Your task to perform on an android device: uninstall "Google Keep" Image 0: 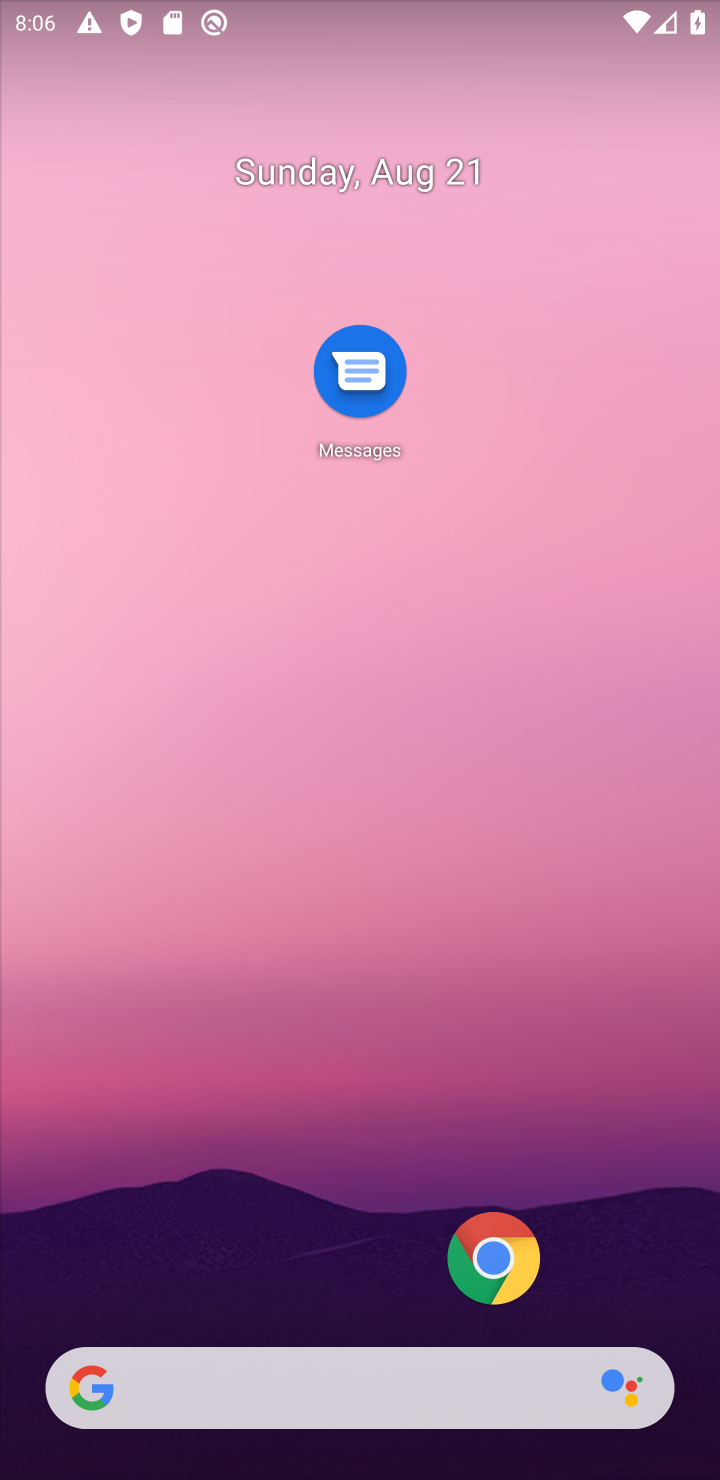
Step 0: drag from (333, 1391) to (355, 305)
Your task to perform on an android device: uninstall "Google Keep" Image 1: 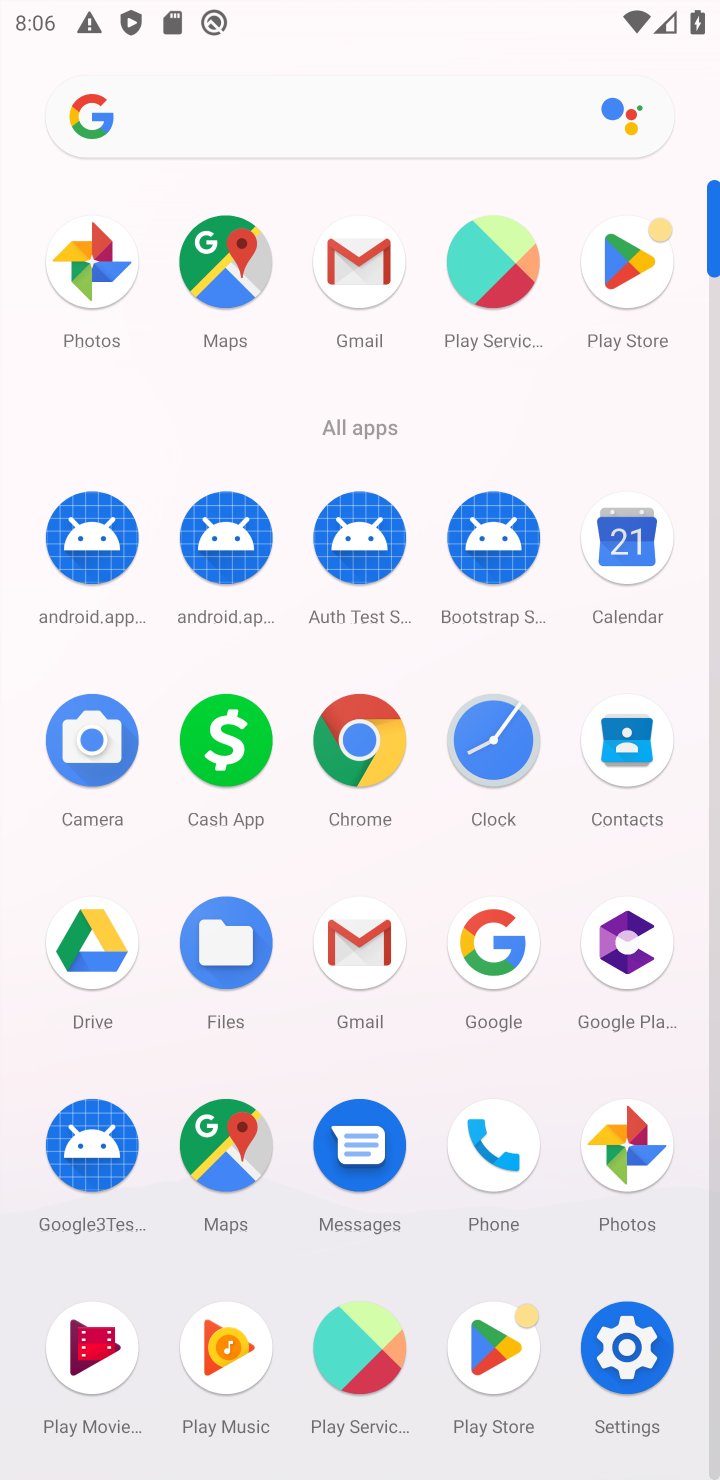
Step 1: click (624, 276)
Your task to perform on an android device: uninstall "Google Keep" Image 2: 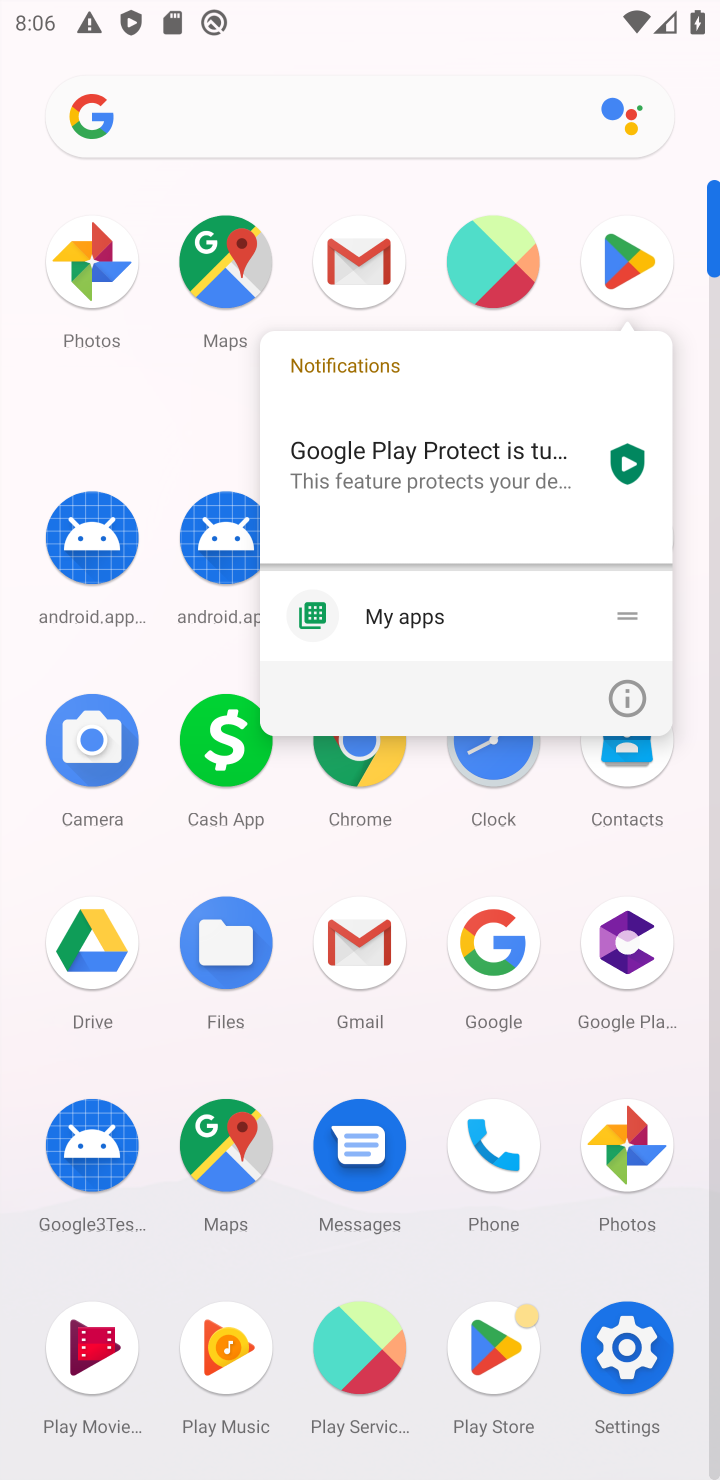
Step 2: click (619, 290)
Your task to perform on an android device: uninstall "Google Keep" Image 3: 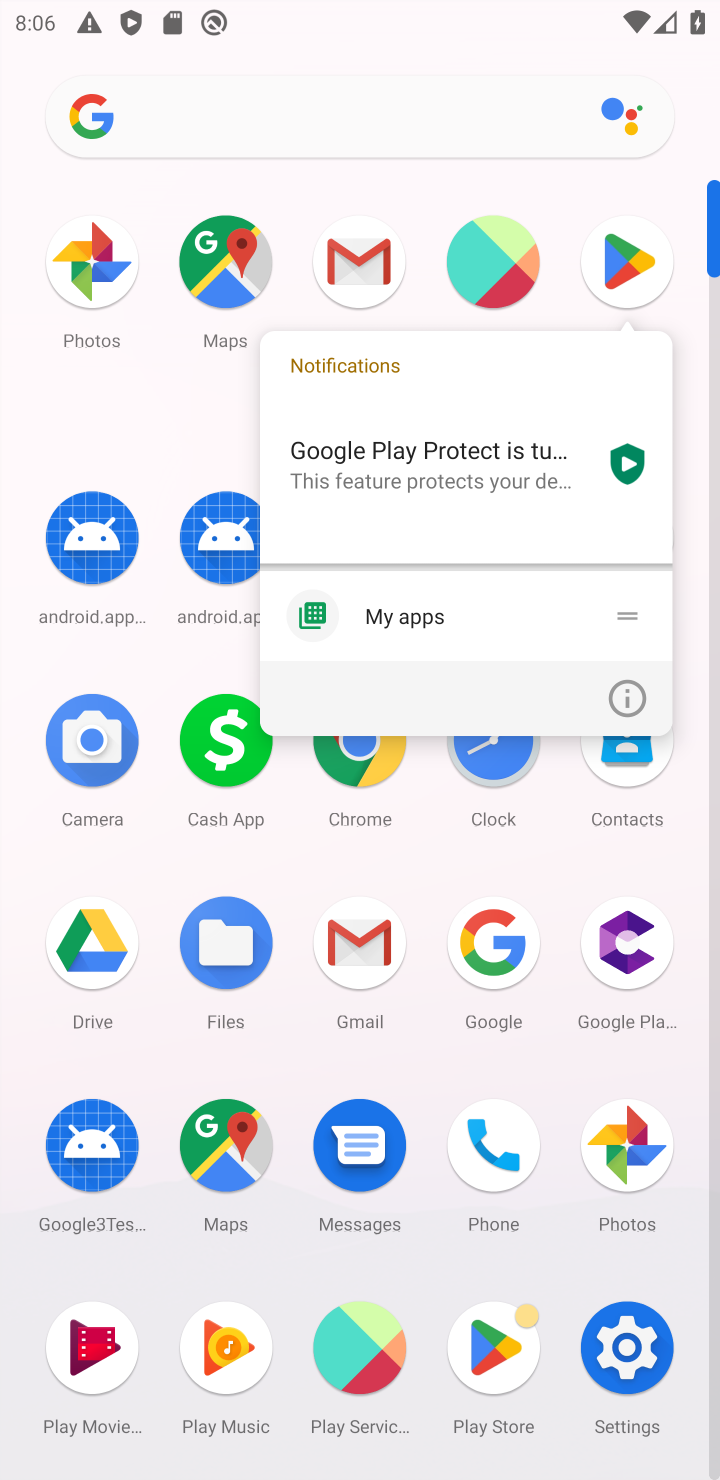
Step 3: click (619, 288)
Your task to perform on an android device: uninstall "Google Keep" Image 4: 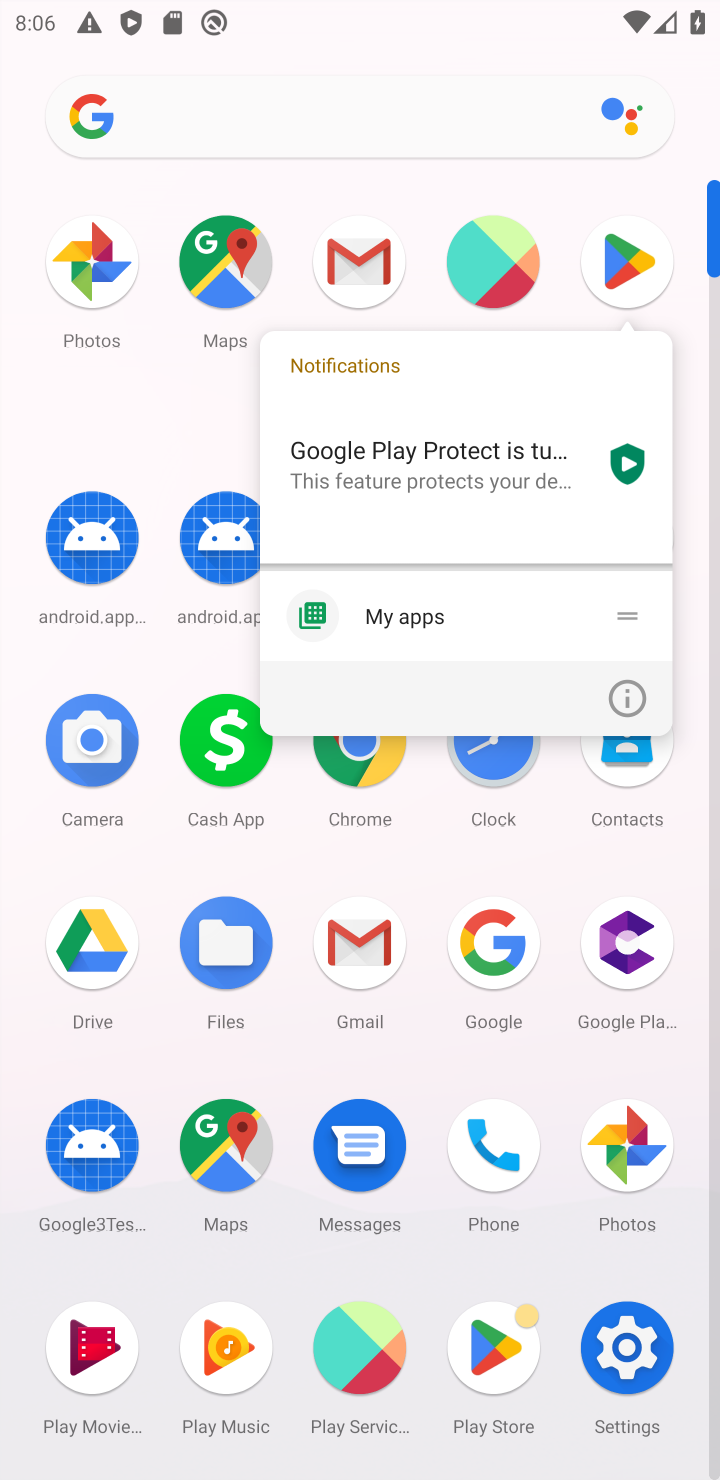
Step 4: click (613, 272)
Your task to perform on an android device: uninstall "Google Keep" Image 5: 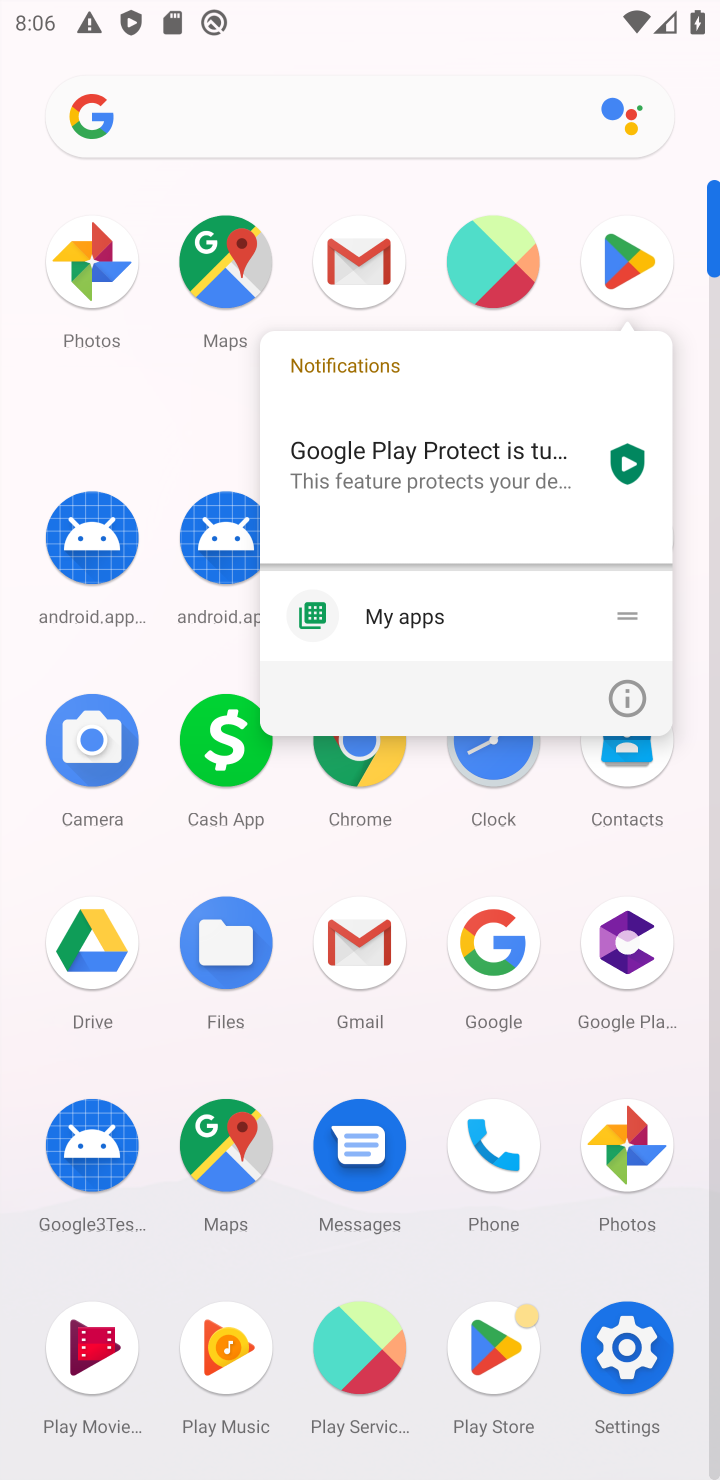
Step 5: click (613, 274)
Your task to perform on an android device: uninstall "Google Keep" Image 6: 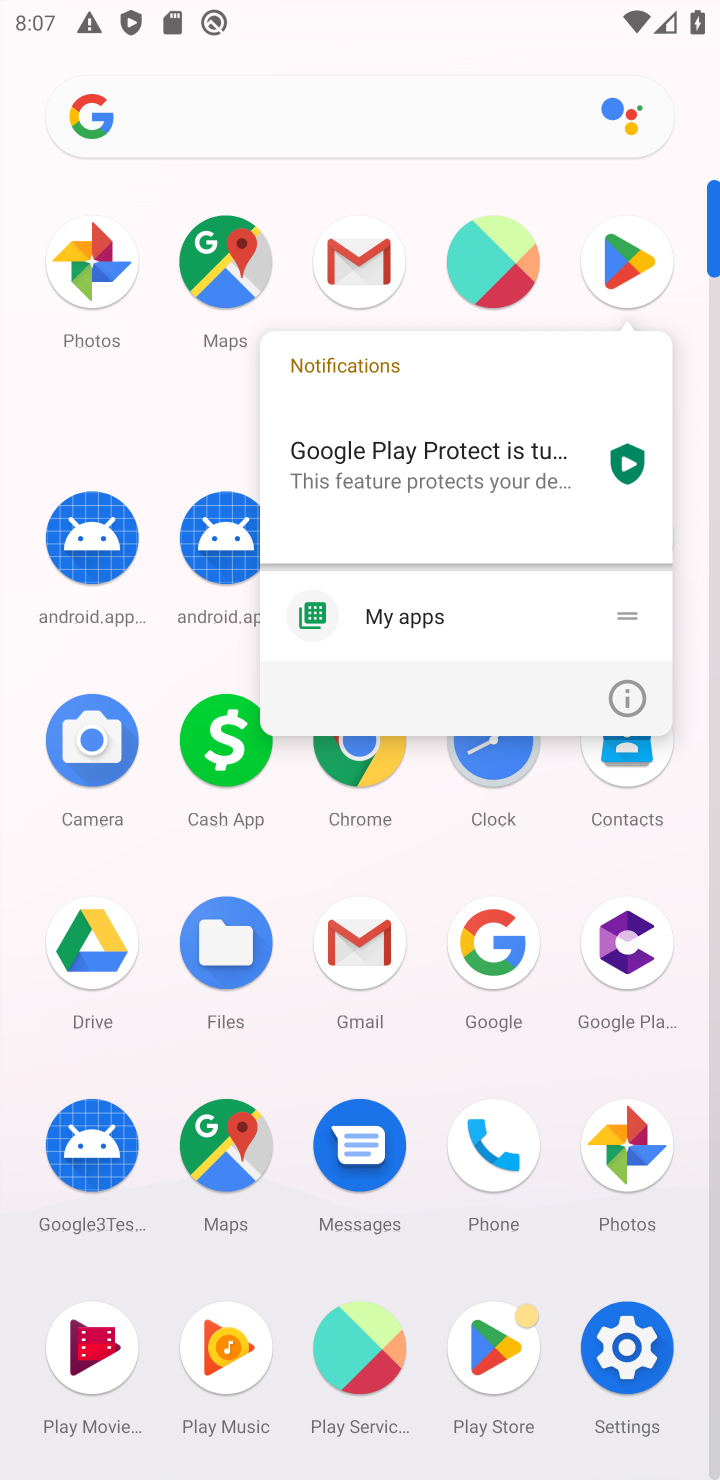
Step 6: click (650, 274)
Your task to perform on an android device: uninstall "Google Keep" Image 7: 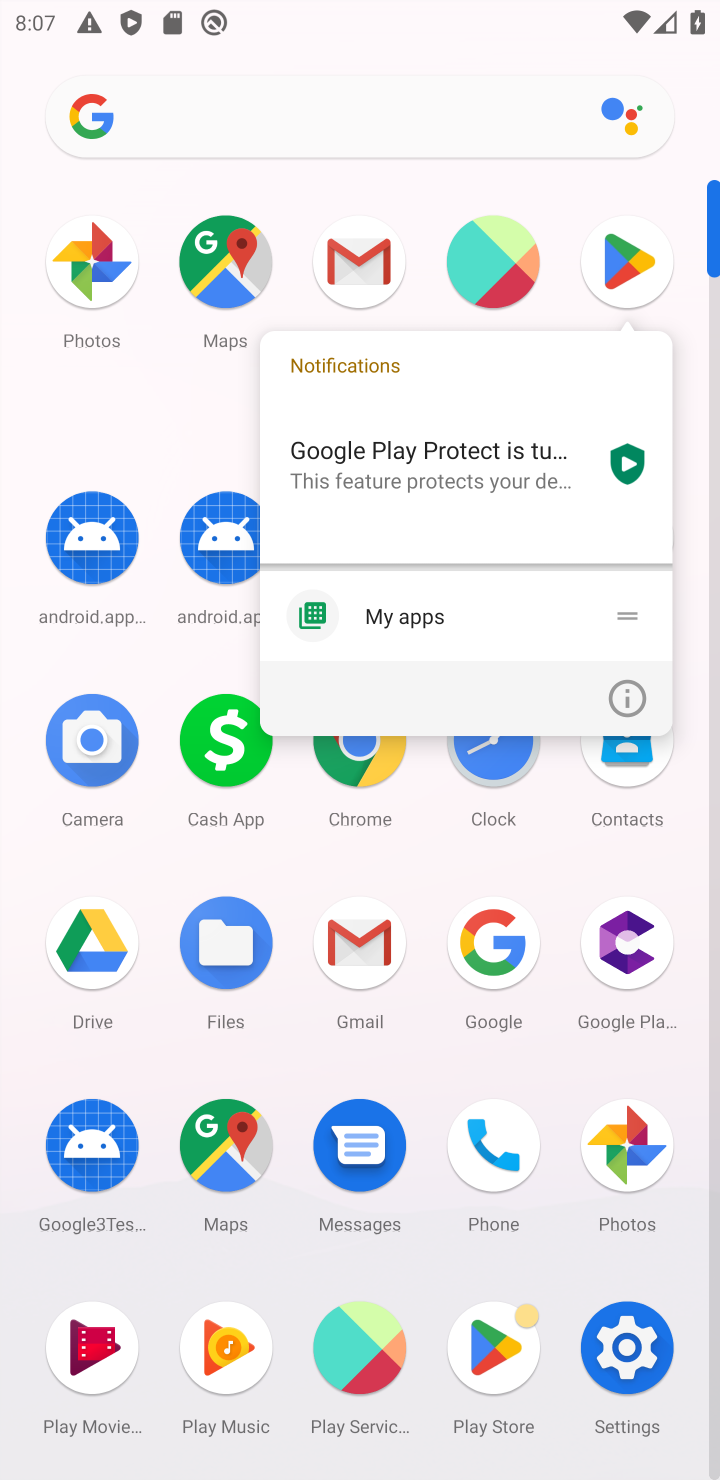
Step 7: click (595, 266)
Your task to perform on an android device: uninstall "Google Keep" Image 8: 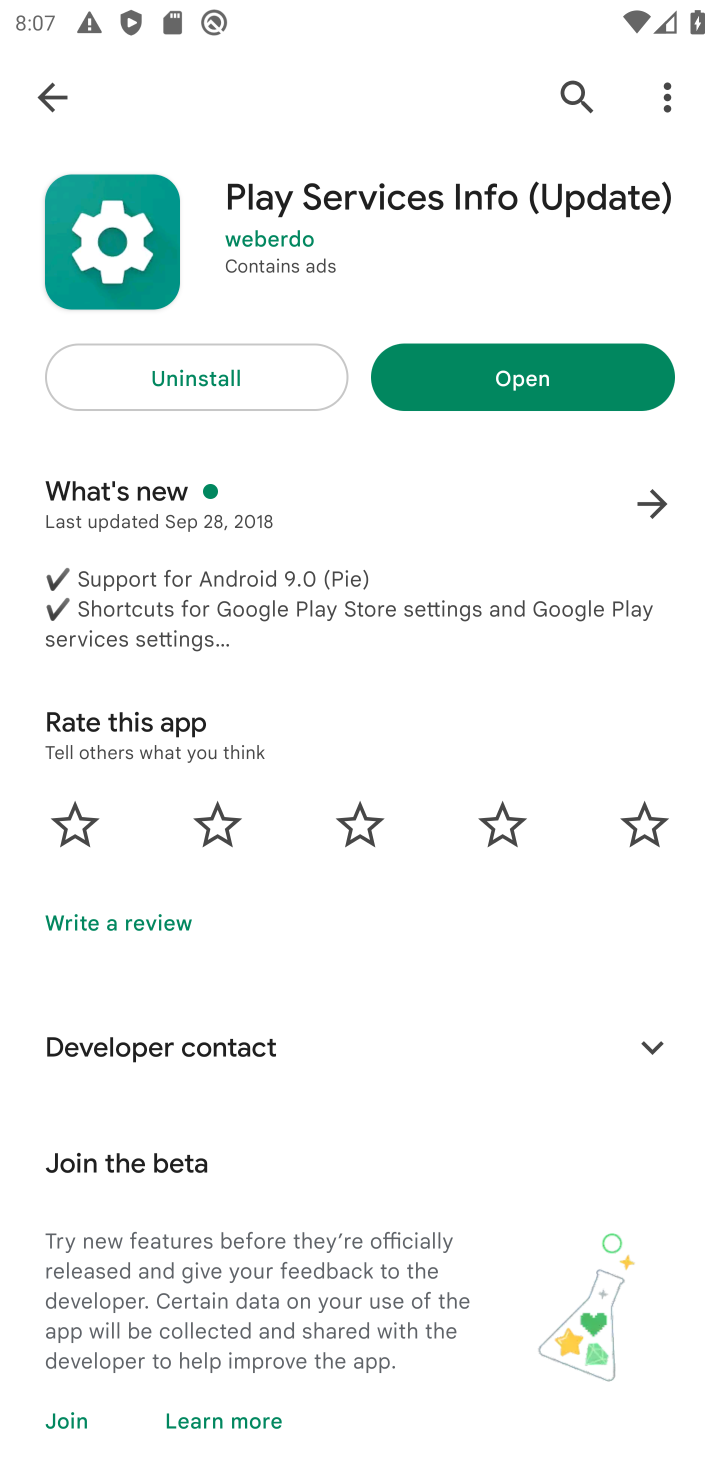
Step 8: press back button
Your task to perform on an android device: uninstall "Google Keep" Image 9: 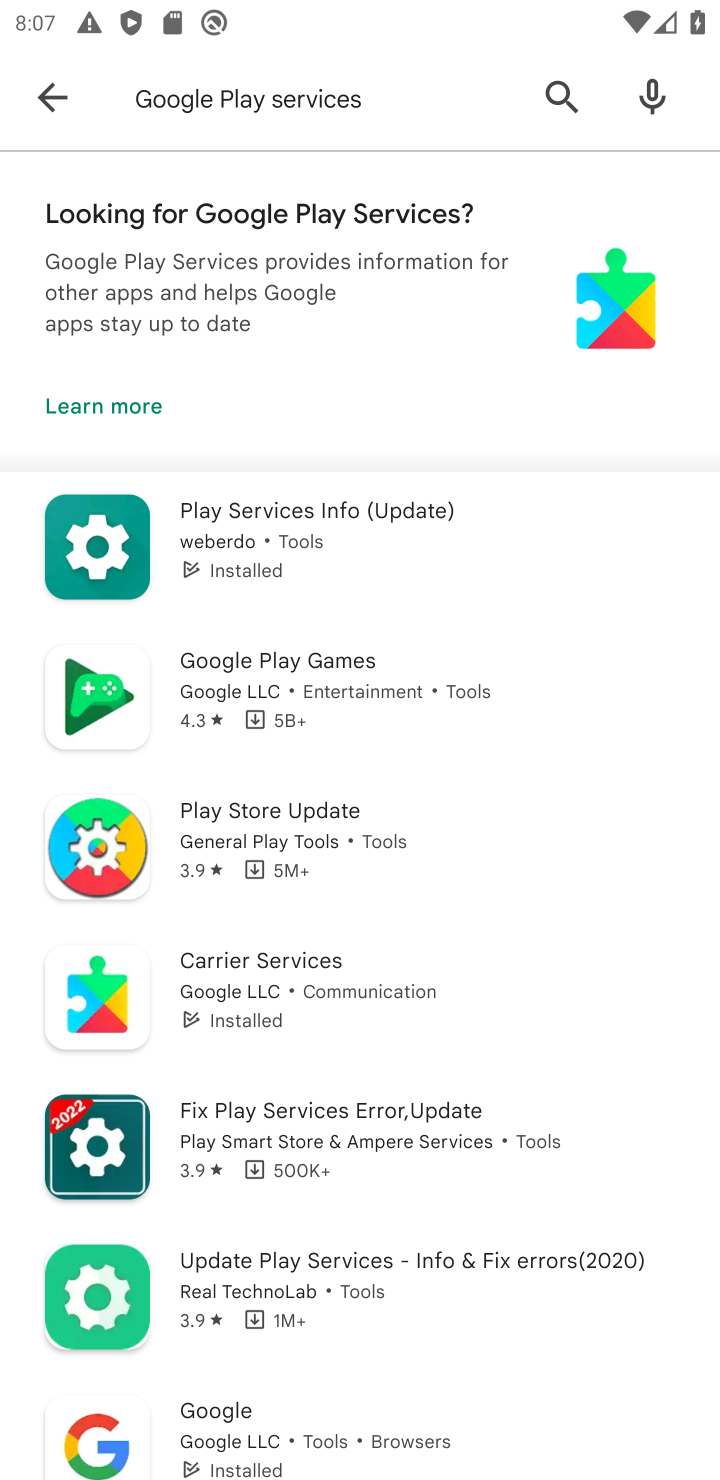
Step 9: press back button
Your task to perform on an android device: uninstall "Google Keep" Image 10: 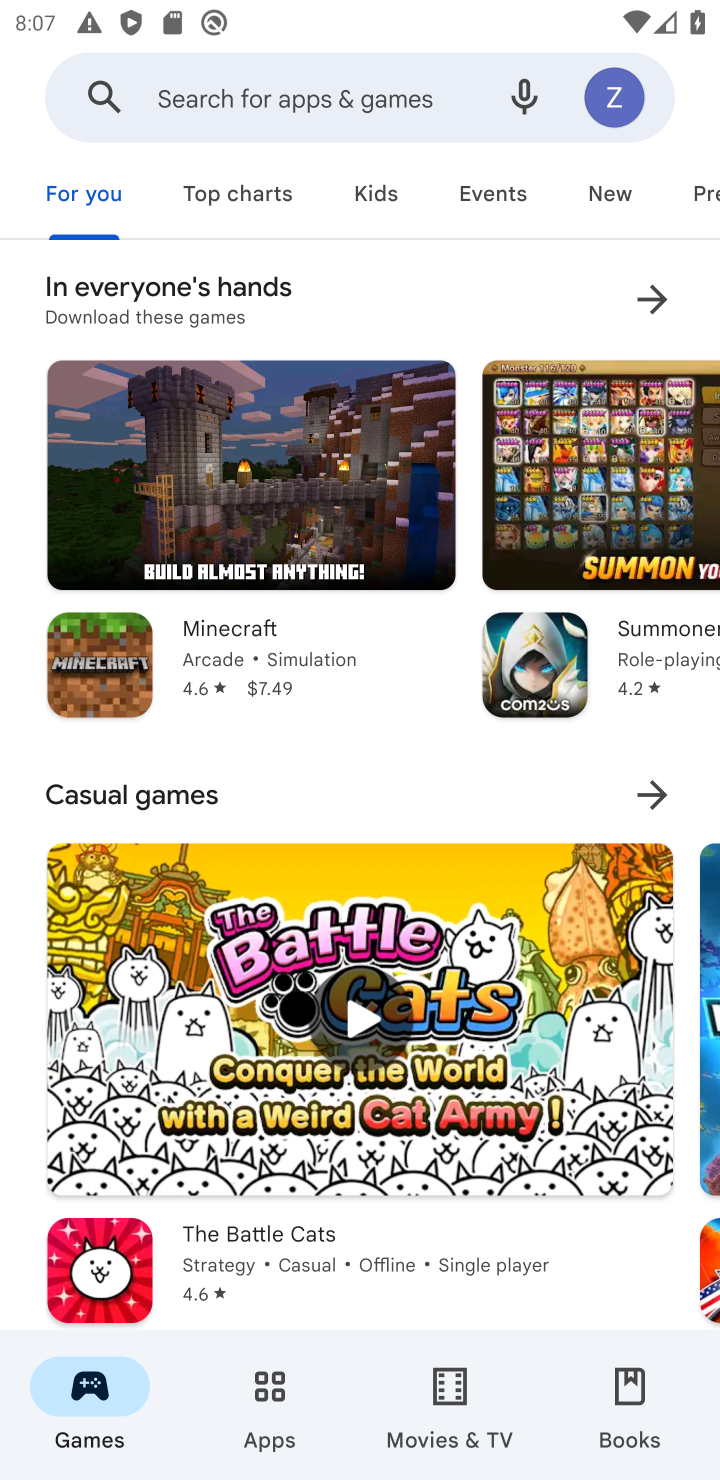
Step 10: type "Google Keep"
Your task to perform on an android device: uninstall "Google Keep" Image 11: 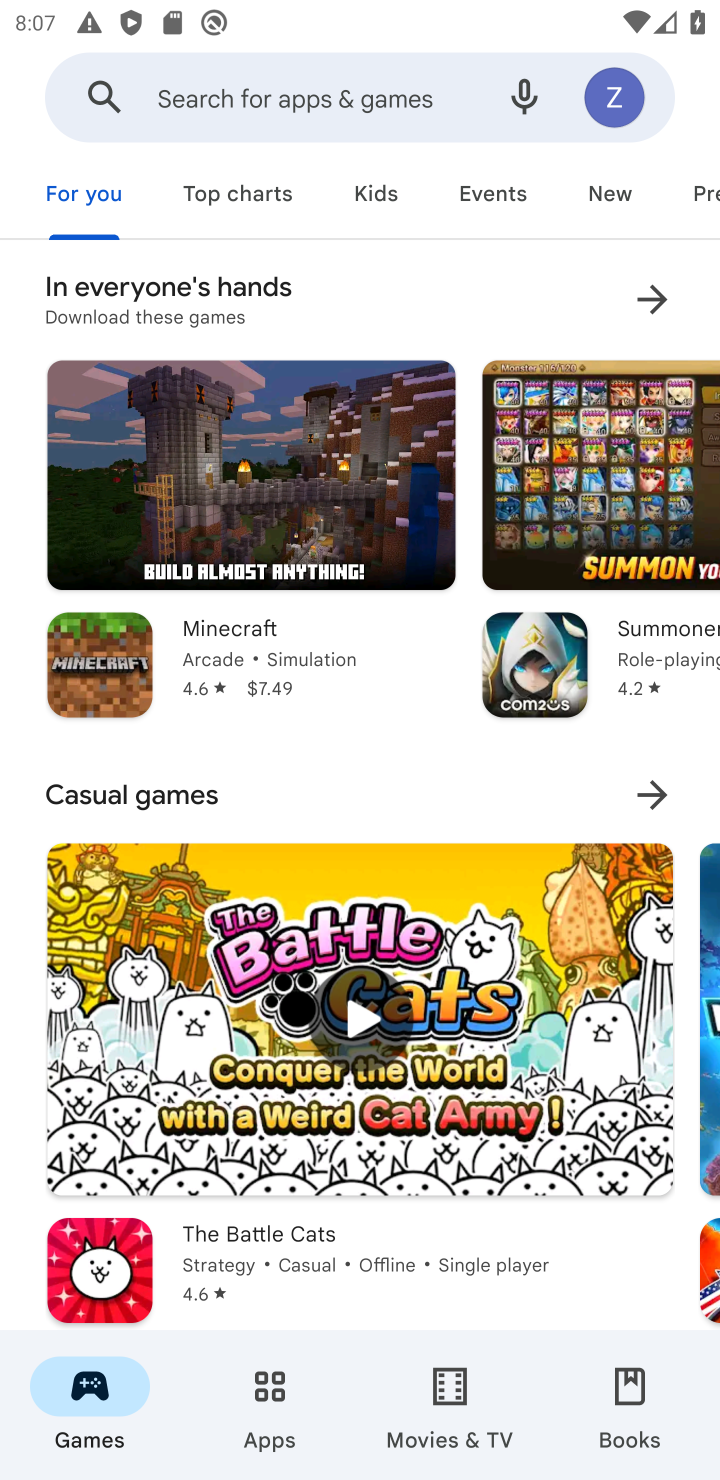
Step 11: press enter
Your task to perform on an android device: uninstall "Google Keep" Image 12: 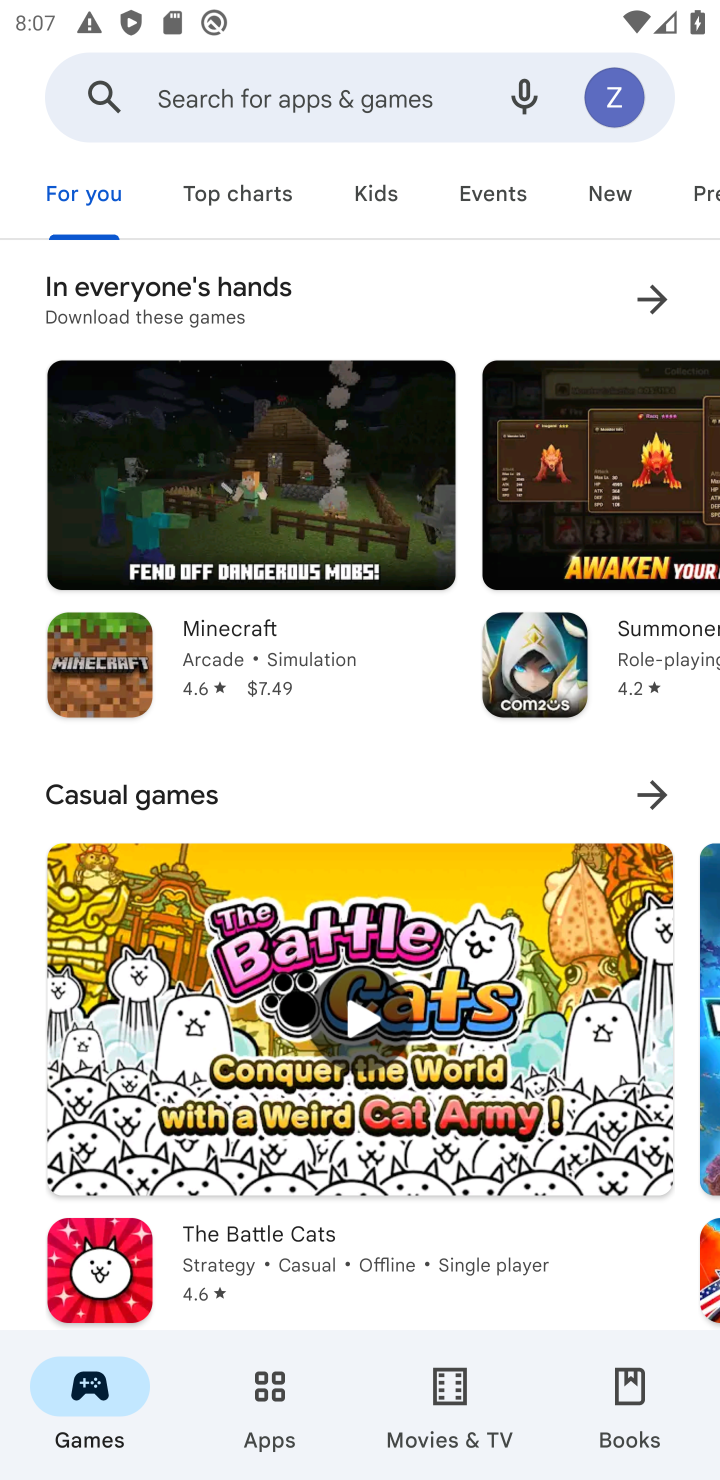
Step 12: click (254, 107)
Your task to perform on an android device: uninstall "Google Keep" Image 13: 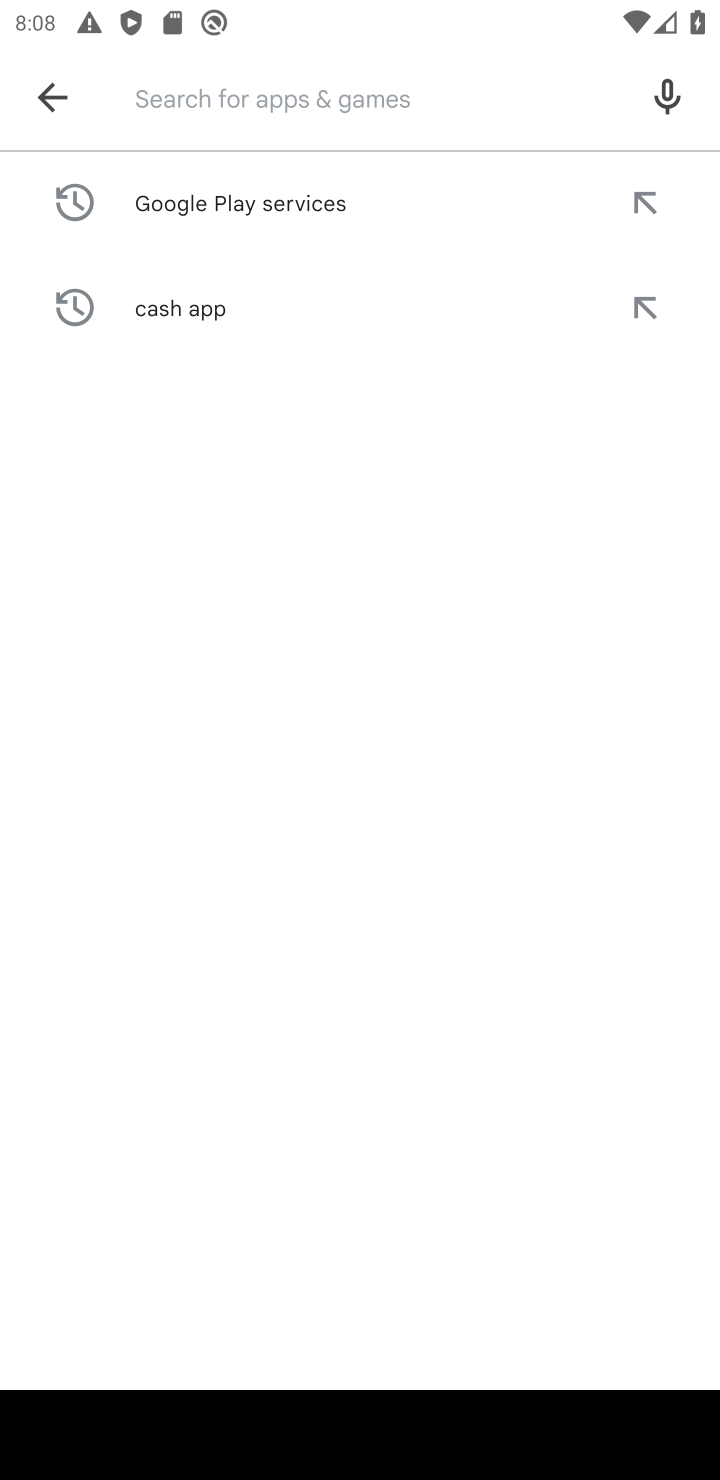
Step 13: type "Google Keep"
Your task to perform on an android device: uninstall "Google Keep" Image 14: 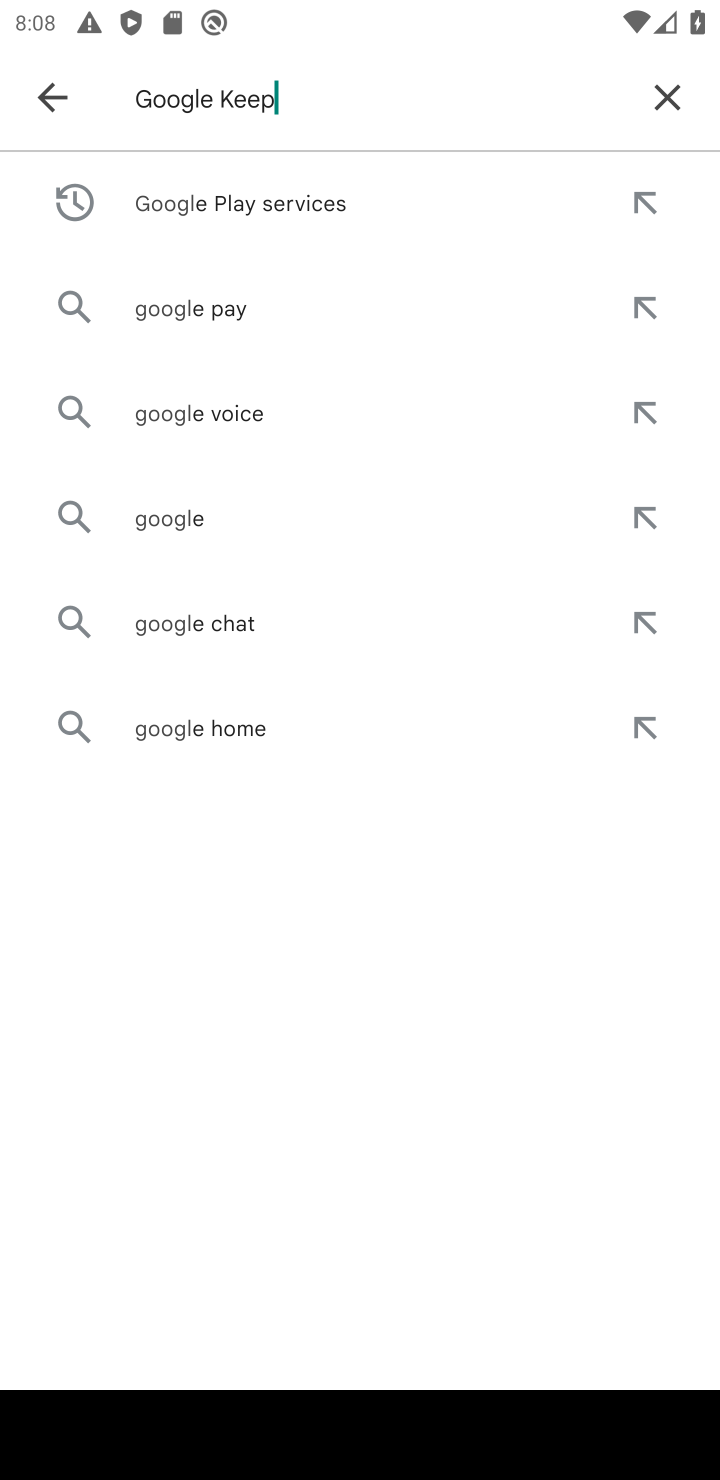
Step 14: press enter
Your task to perform on an android device: uninstall "Google Keep" Image 15: 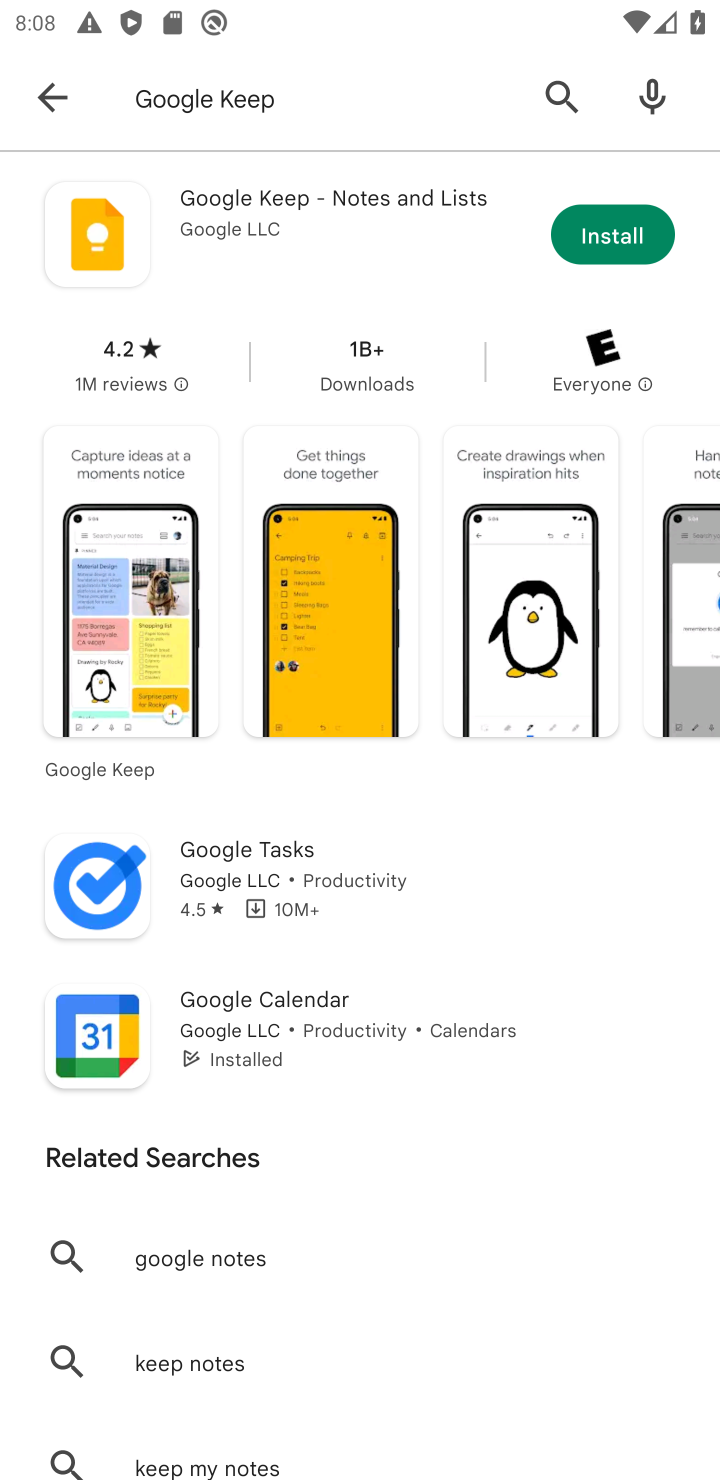
Step 15: task complete